Your task to perform on an android device: See recent photos Image 0: 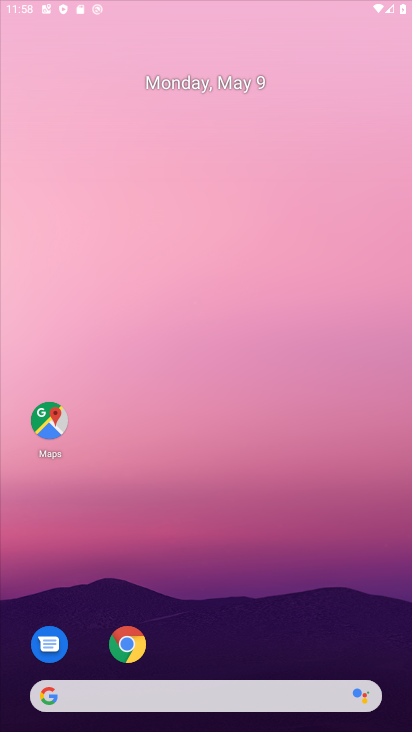
Step 0: drag from (234, 637) to (316, 106)
Your task to perform on an android device: See recent photos Image 1: 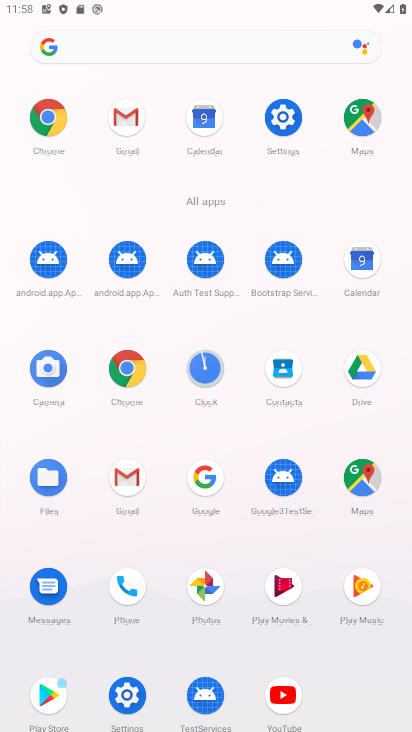
Step 1: click (211, 589)
Your task to perform on an android device: See recent photos Image 2: 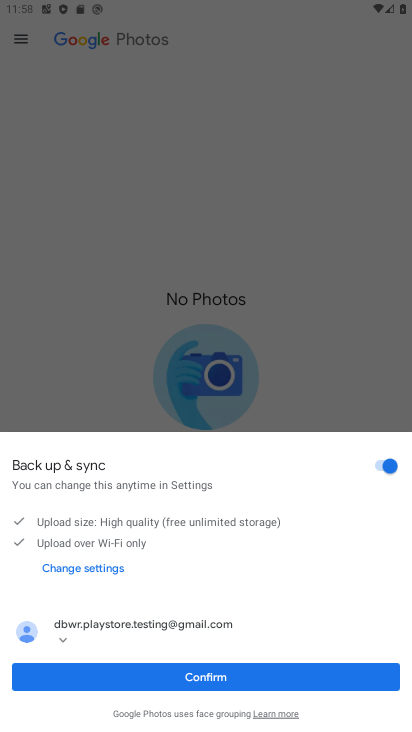
Step 2: click (210, 678)
Your task to perform on an android device: See recent photos Image 3: 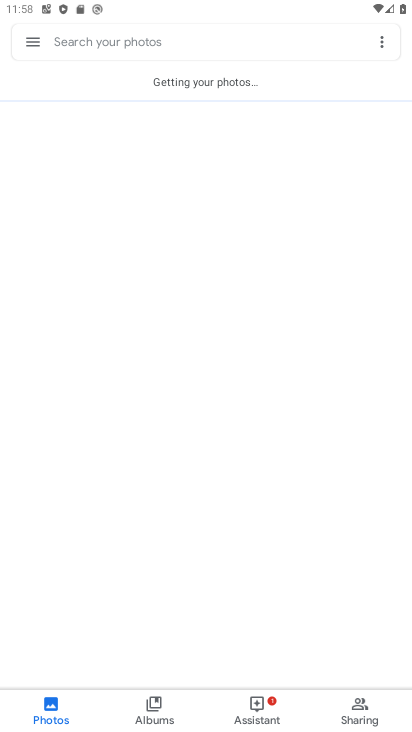
Step 3: click (47, 708)
Your task to perform on an android device: See recent photos Image 4: 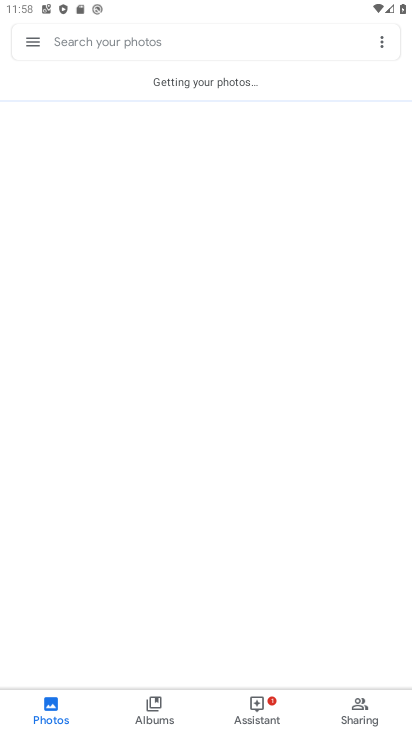
Step 4: task complete